Your task to perform on an android device: What's the weather? Image 0: 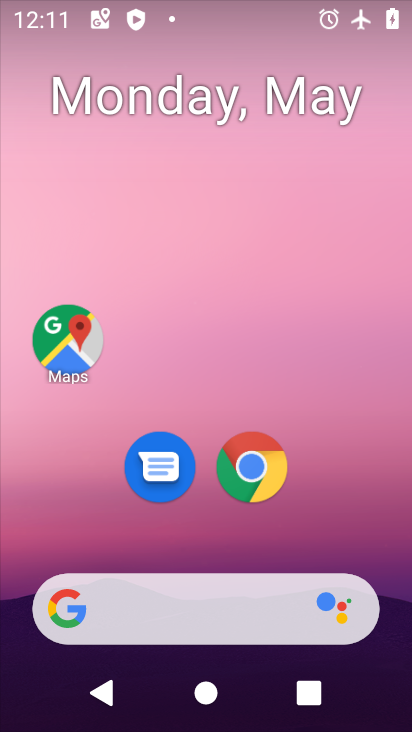
Step 0: click (125, 608)
Your task to perform on an android device: What's the weather? Image 1: 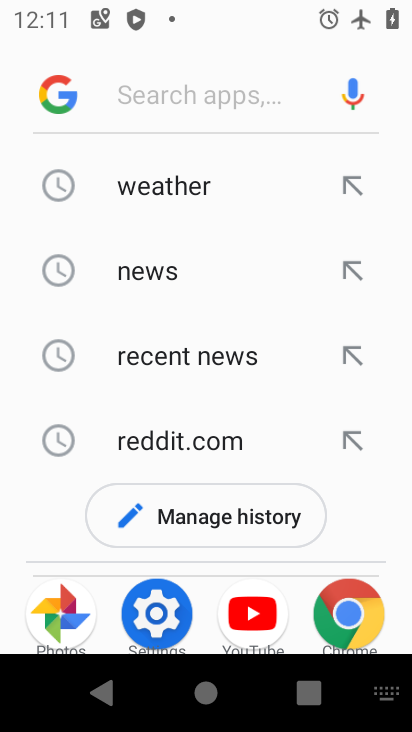
Step 1: click (164, 184)
Your task to perform on an android device: What's the weather? Image 2: 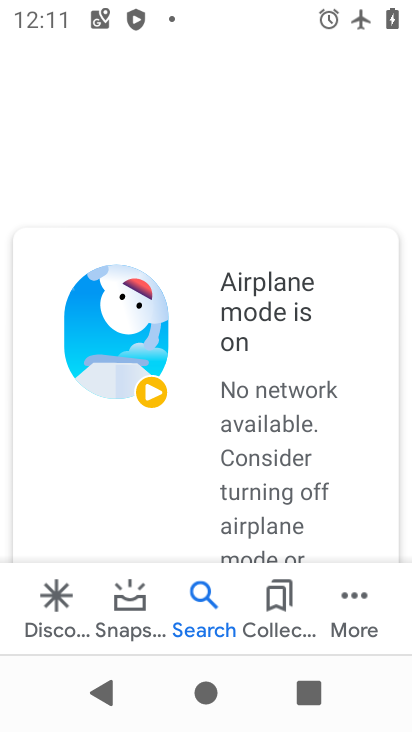
Step 2: task complete